Your task to perform on an android device: turn off location history Image 0: 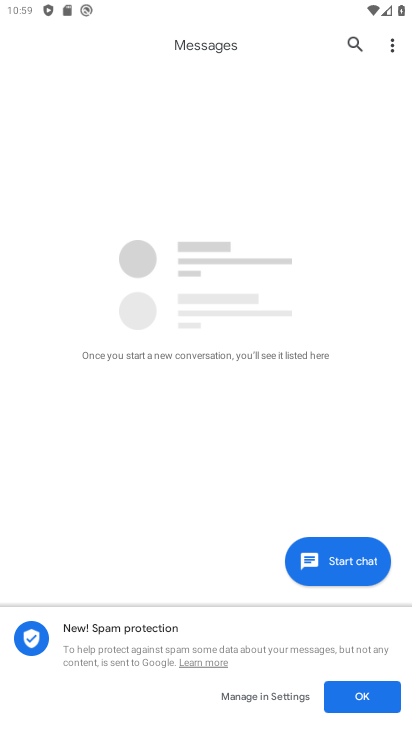
Step 0: press back button
Your task to perform on an android device: turn off location history Image 1: 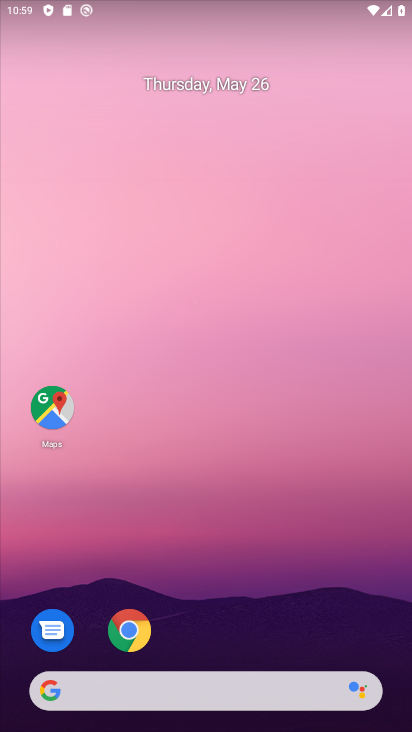
Step 1: drag from (228, 651) to (264, 105)
Your task to perform on an android device: turn off location history Image 2: 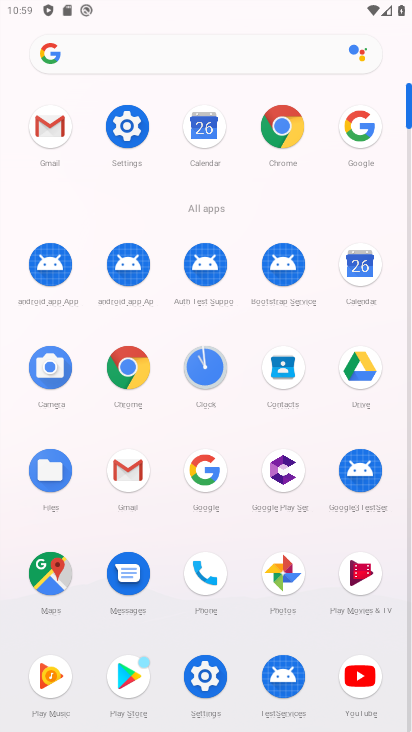
Step 2: click (206, 676)
Your task to perform on an android device: turn off location history Image 3: 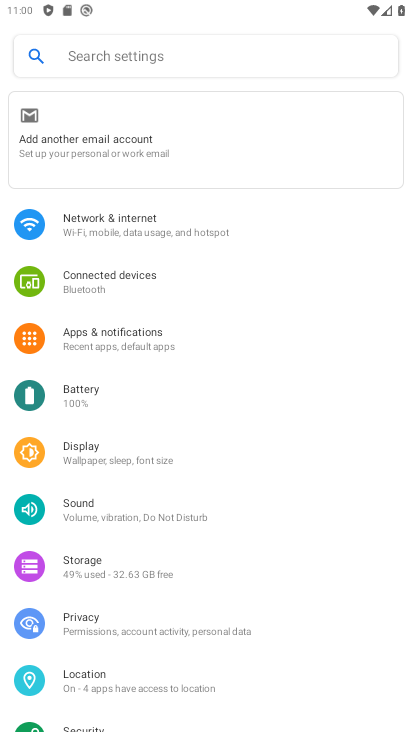
Step 3: drag from (105, 489) to (110, 399)
Your task to perform on an android device: turn off location history Image 4: 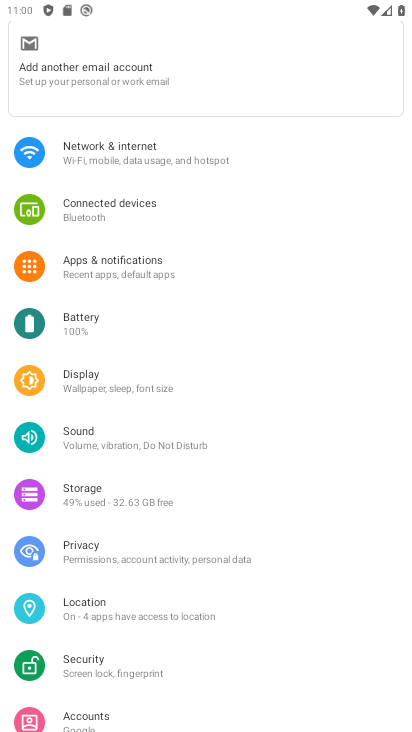
Step 4: drag from (121, 532) to (128, 450)
Your task to perform on an android device: turn off location history Image 5: 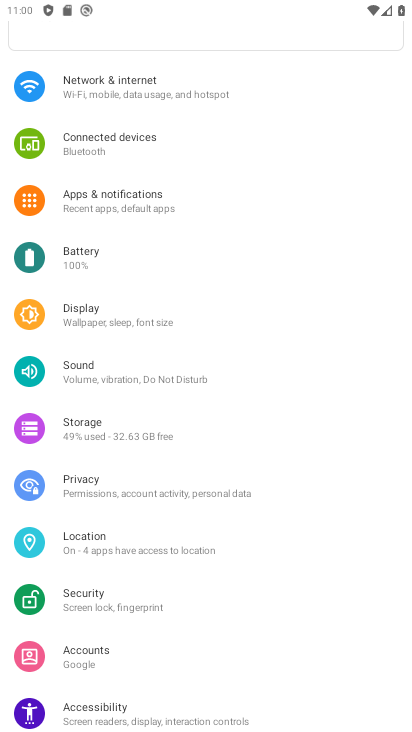
Step 5: click (122, 541)
Your task to perform on an android device: turn off location history Image 6: 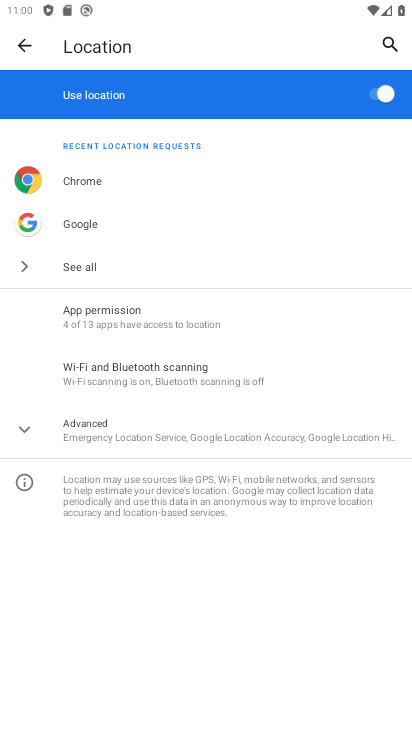
Step 6: click (163, 443)
Your task to perform on an android device: turn off location history Image 7: 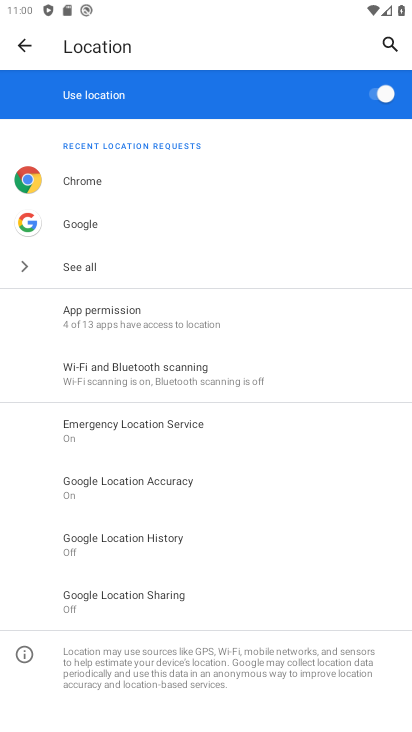
Step 7: task complete